Your task to perform on an android device: Show the shopping cart on costco.com. Add macbook pro 13 inch to the cart on costco.com, then select checkout. Image 0: 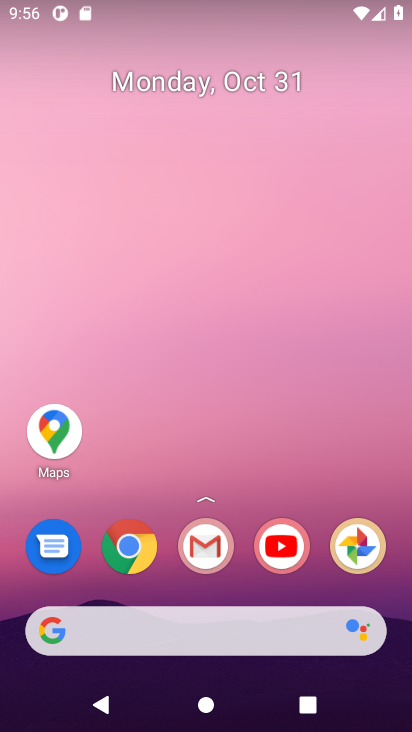
Step 0: click (136, 557)
Your task to perform on an android device: Show the shopping cart on costco.com. Add macbook pro 13 inch to the cart on costco.com, then select checkout. Image 1: 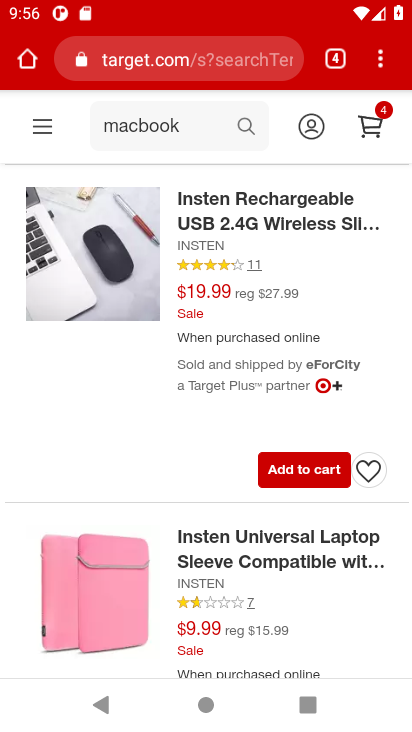
Step 1: click (204, 58)
Your task to perform on an android device: Show the shopping cart on costco.com. Add macbook pro 13 inch to the cart on costco.com, then select checkout. Image 2: 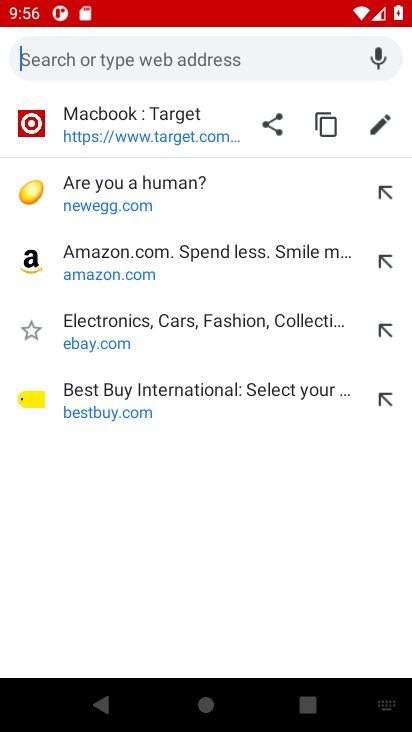
Step 2: type "costco.com"
Your task to perform on an android device: Show the shopping cart on costco.com. Add macbook pro 13 inch to the cart on costco.com, then select checkout. Image 3: 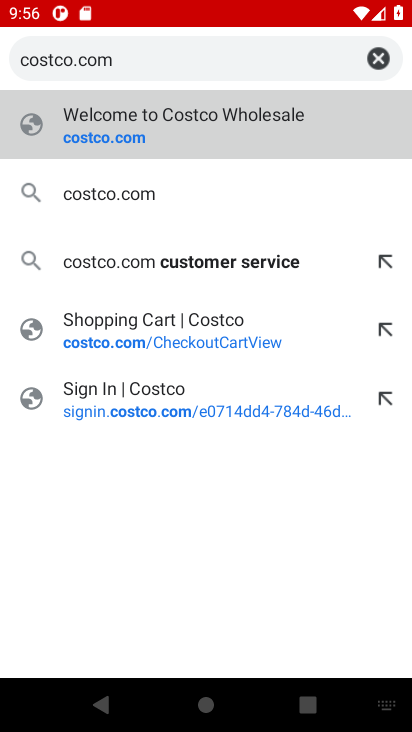
Step 3: press enter
Your task to perform on an android device: Show the shopping cart on costco.com. Add macbook pro 13 inch to the cart on costco.com, then select checkout. Image 4: 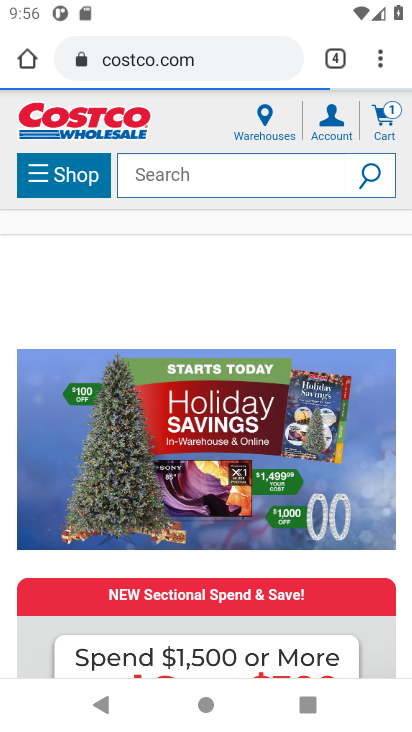
Step 4: click (384, 125)
Your task to perform on an android device: Show the shopping cart on costco.com. Add macbook pro 13 inch to the cart on costco.com, then select checkout. Image 5: 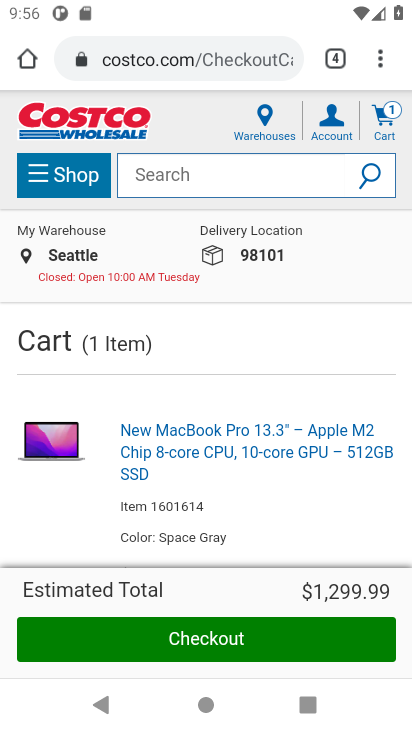
Step 5: click (254, 183)
Your task to perform on an android device: Show the shopping cart on costco.com. Add macbook pro 13 inch to the cart on costco.com, then select checkout. Image 6: 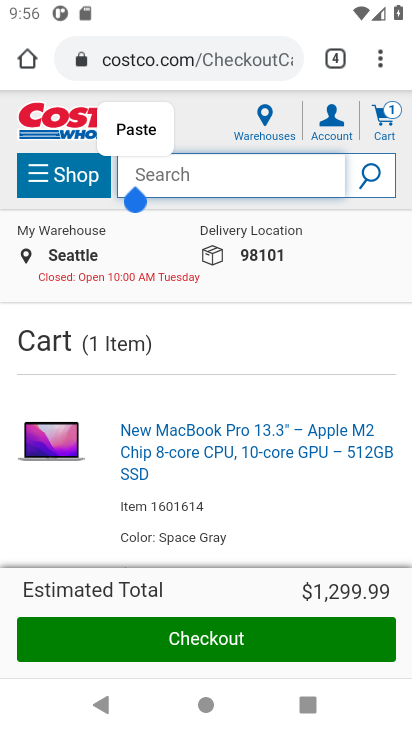
Step 6: click (133, 134)
Your task to perform on an android device: Show the shopping cart on costco.com. Add macbook pro 13 inch to the cart on costco.com, then select checkout. Image 7: 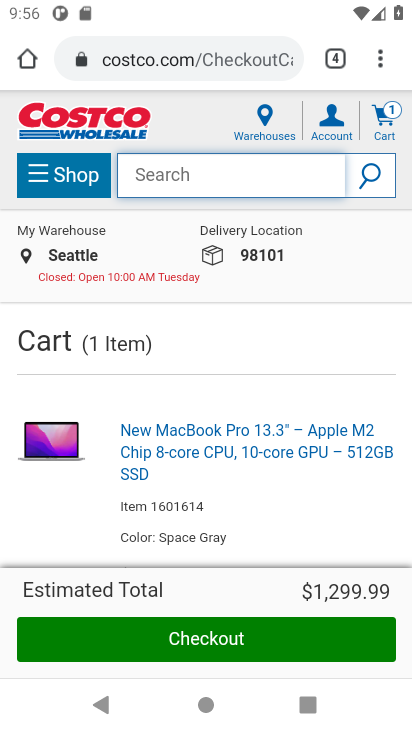
Step 7: type "macbook pro 13 inch"
Your task to perform on an android device: Show the shopping cart on costco.com. Add macbook pro 13 inch to the cart on costco.com, then select checkout. Image 8: 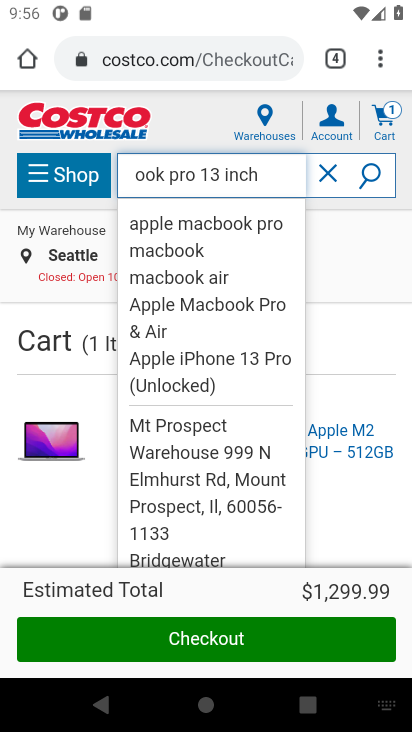
Step 8: press enter
Your task to perform on an android device: Show the shopping cart on costco.com. Add macbook pro 13 inch to the cart on costco.com, then select checkout. Image 9: 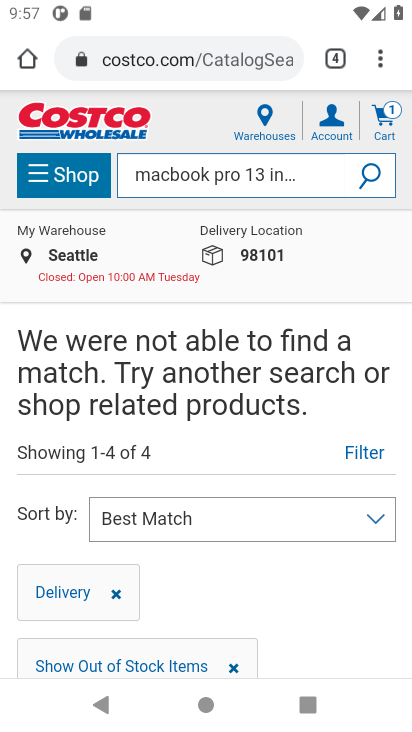
Step 9: drag from (338, 605) to (360, 287)
Your task to perform on an android device: Show the shopping cart on costco.com. Add macbook pro 13 inch to the cart on costco.com, then select checkout. Image 10: 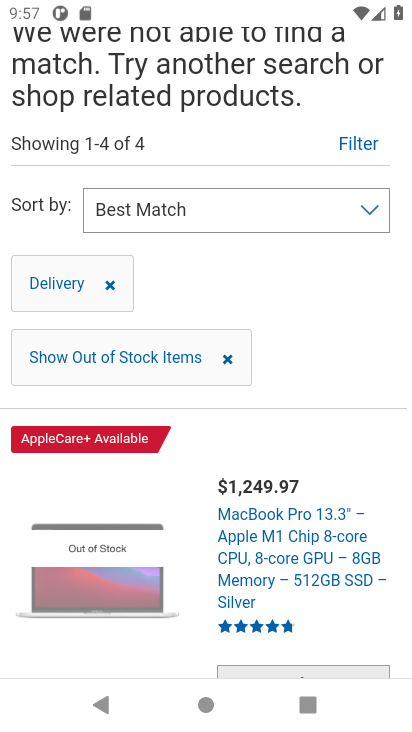
Step 10: drag from (329, 619) to (353, 177)
Your task to perform on an android device: Show the shopping cart on costco.com. Add macbook pro 13 inch to the cart on costco.com, then select checkout. Image 11: 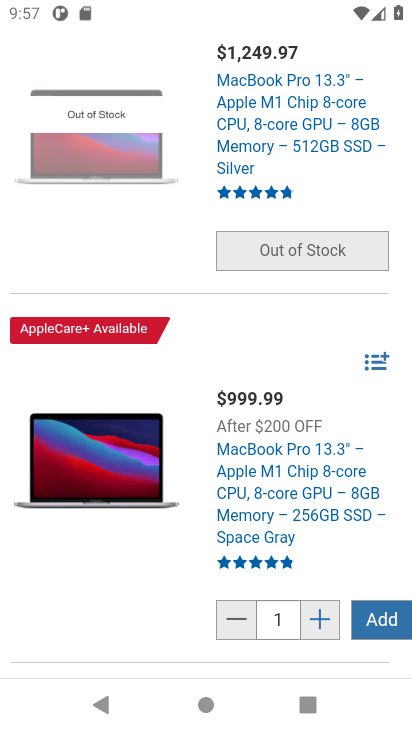
Step 11: click (274, 489)
Your task to perform on an android device: Show the shopping cart on costco.com. Add macbook pro 13 inch to the cart on costco.com, then select checkout. Image 12: 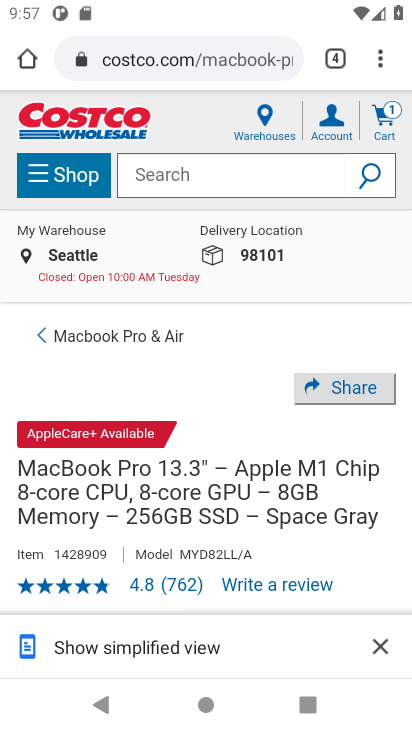
Step 12: drag from (282, 543) to (297, 149)
Your task to perform on an android device: Show the shopping cart on costco.com. Add macbook pro 13 inch to the cart on costco.com, then select checkout. Image 13: 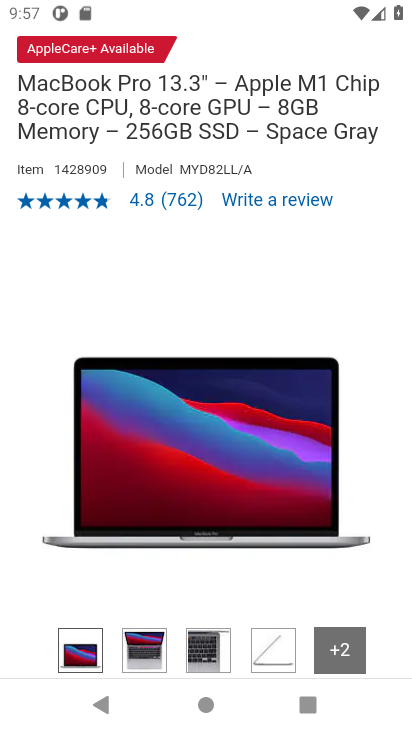
Step 13: drag from (283, 562) to (301, 118)
Your task to perform on an android device: Show the shopping cart on costco.com. Add macbook pro 13 inch to the cart on costco.com, then select checkout. Image 14: 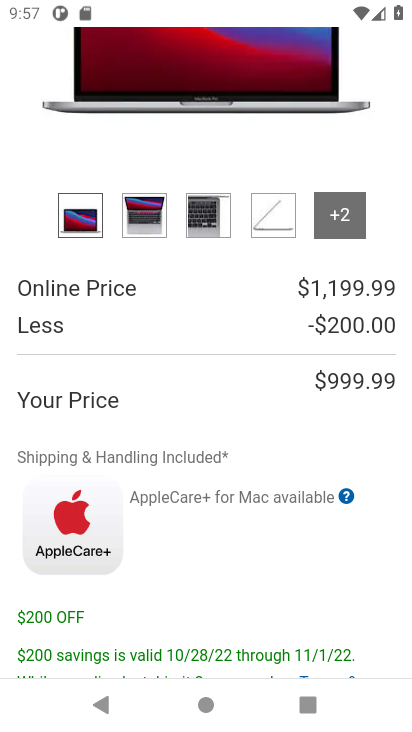
Step 14: drag from (282, 511) to (352, 135)
Your task to perform on an android device: Show the shopping cart on costco.com. Add macbook pro 13 inch to the cart on costco.com, then select checkout. Image 15: 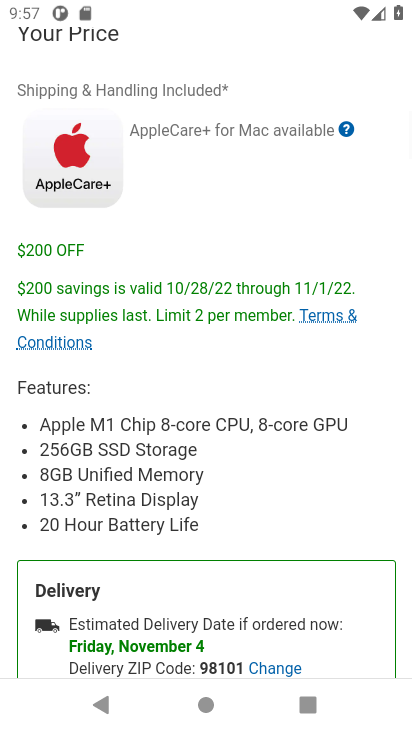
Step 15: drag from (320, 358) to (362, 78)
Your task to perform on an android device: Show the shopping cart on costco.com. Add macbook pro 13 inch to the cart on costco.com, then select checkout. Image 16: 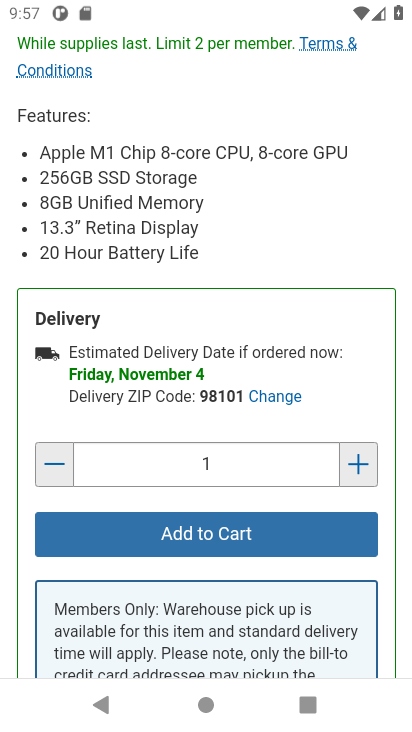
Step 16: click (275, 534)
Your task to perform on an android device: Show the shopping cart on costco.com. Add macbook pro 13 inch to the cart on costco.com, then select checkout. Image 17: 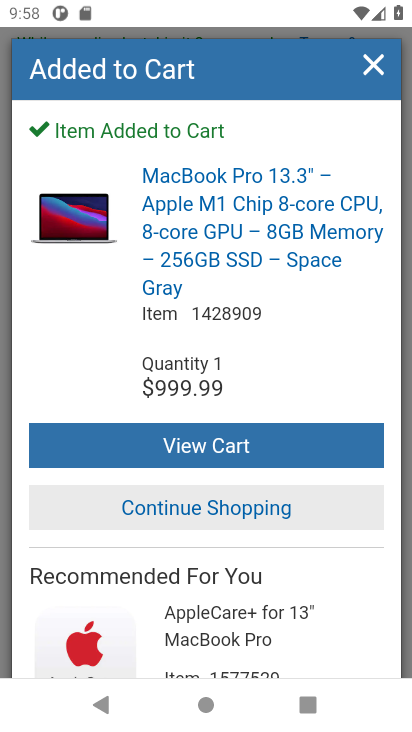
Step 17: click (234, 446)
Your task to perform on an android device: Show the shopping cart on costco.com. Add macbook pro 13 inch to the cart on costco.com, then select checkout. Image 18: 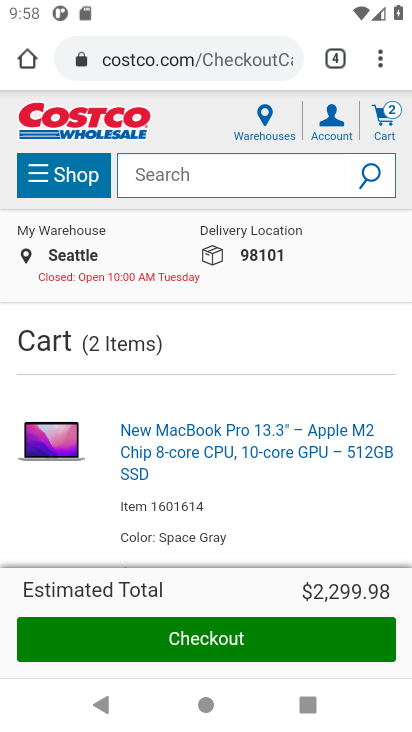
Step 18: click (191, 638)
Your task to perform on an android device: Show the shopping cart on costco.com. Add macbook pro 13 inch to the cart on costco.com, then select checkout. Image 19: 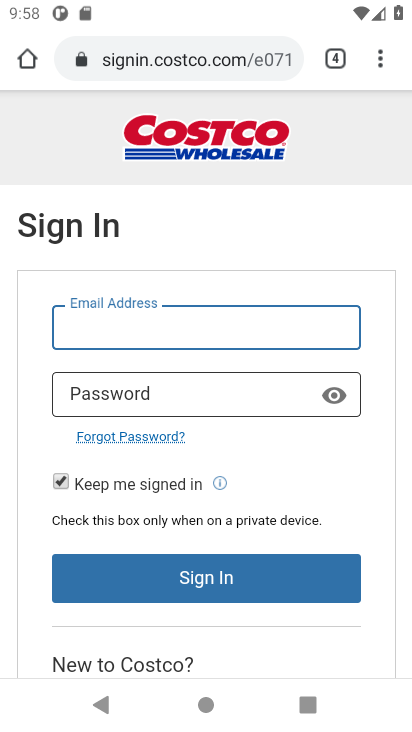
Step 19: task complete